Your task to perform on an android device: change keyboard looks Image 0: 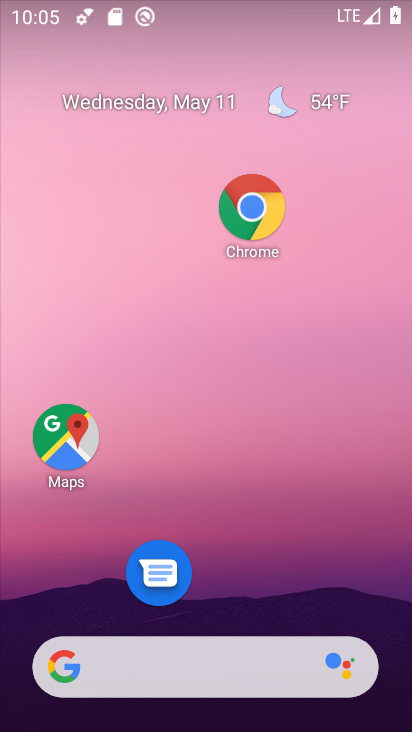
Step 0: drag from (366, 634) to (401, 137)
Your task to perform on an android device: change keyboard looks Image 1: 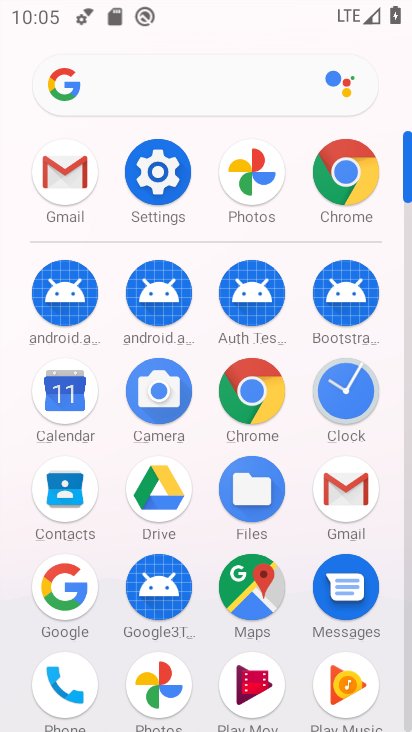
Step 1: click (155, 178)
Your task to perform on an android device: change keyboard looks Image 2: 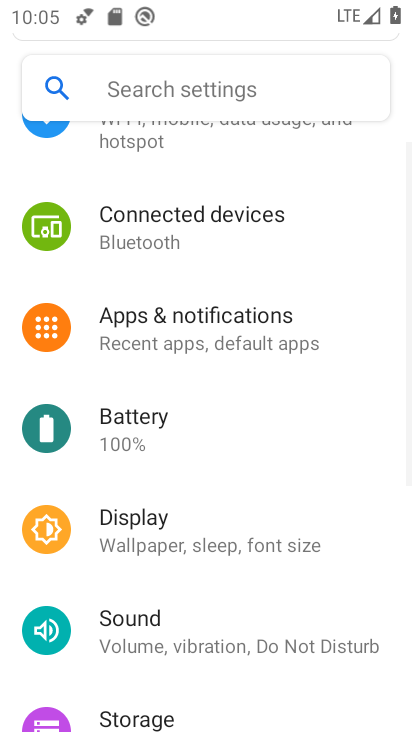
Step 2: drag from (299, 668) to (248, 142)
Your task to perform on an android device: change keyboard looks Image 3: 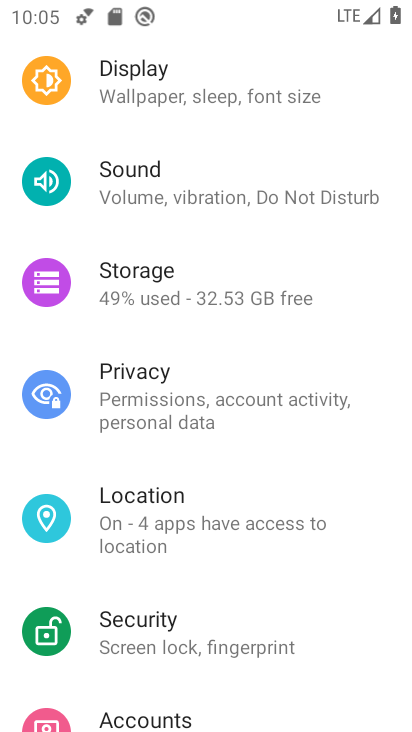
Step 3: drag from (269, 699) to (279, 44)
Your task to perform on an android device: change keyboard looks Image 4: 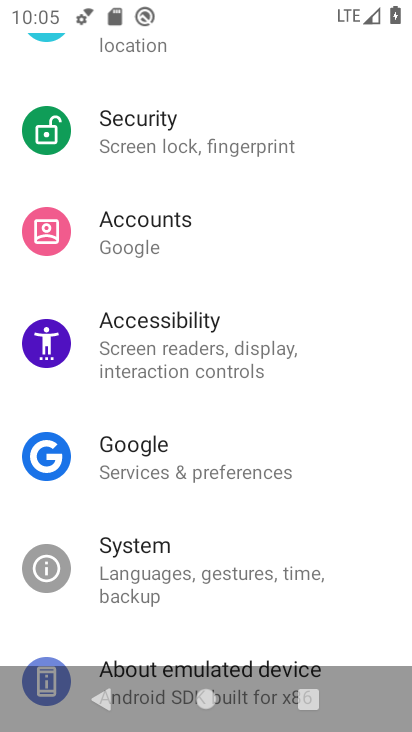
Step 4: drag from (244, 609) to (256, 148)
Your task to perform on an android device: change keyboard looks Image 5: 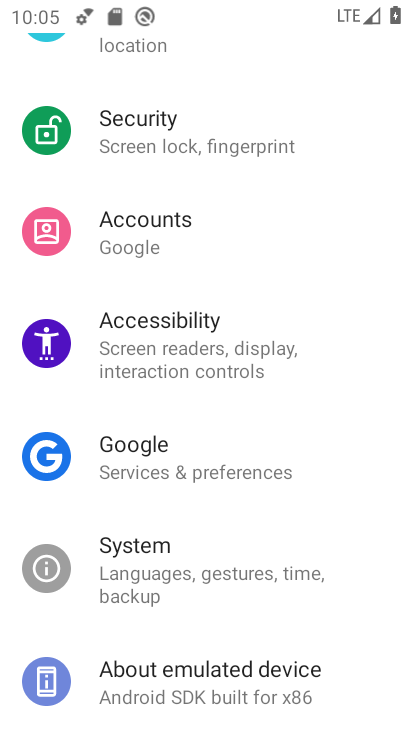
Step 5: click (181, 590)
Your task to perform on an android device: change keyboard looks Image 6: 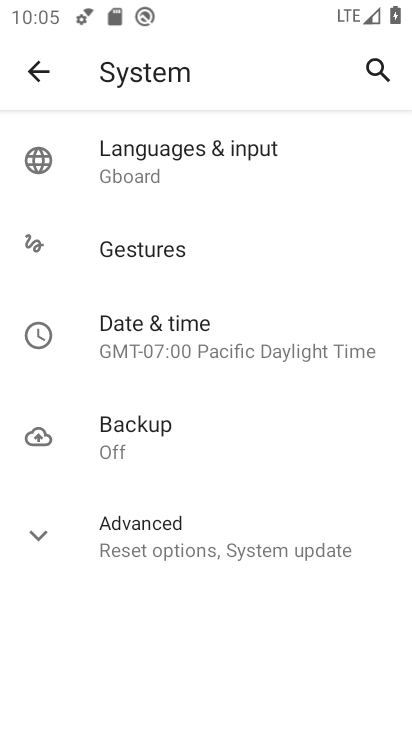
Step 6: click (226, 161)
Your task to perform on an android device: change keyboard looks Image 7: 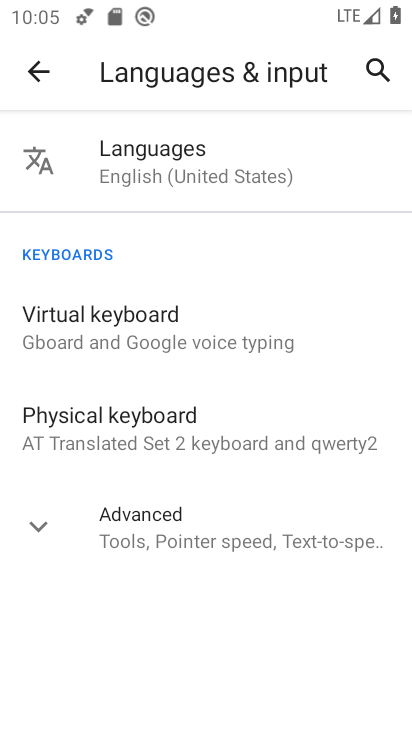
Step 7: click (200, 311)
Your task to perform on an android device: change keyboard looks Image 8: 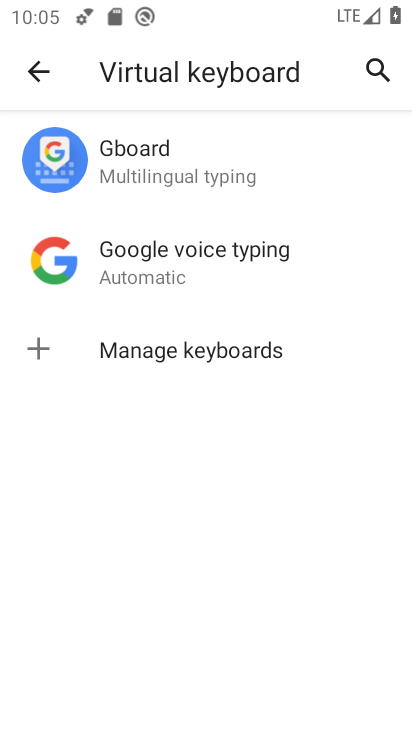
Step 8: click (216, 177)
Your task to perform on an android device: change keyboard looks Image 9: 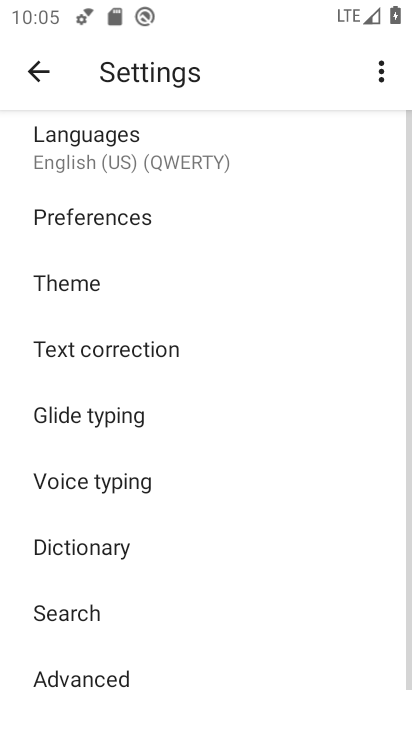
Step 9: click (77, 281)
Your task to perform on an android device: change keyboard looks Image 10: 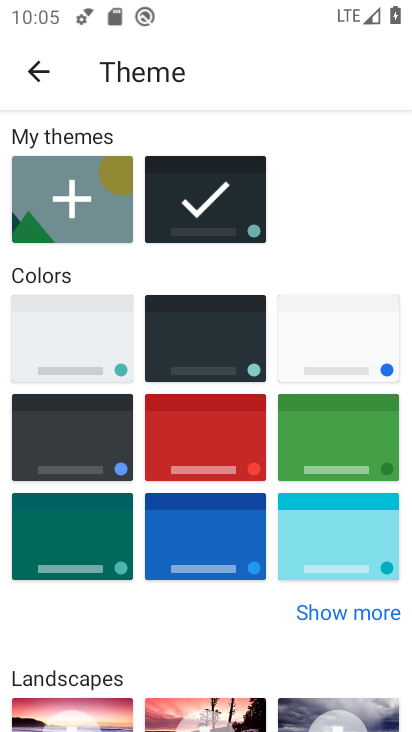
Step 10: click (361, 455)
Your task to perform on an android device: change keyboard looks Image 11: 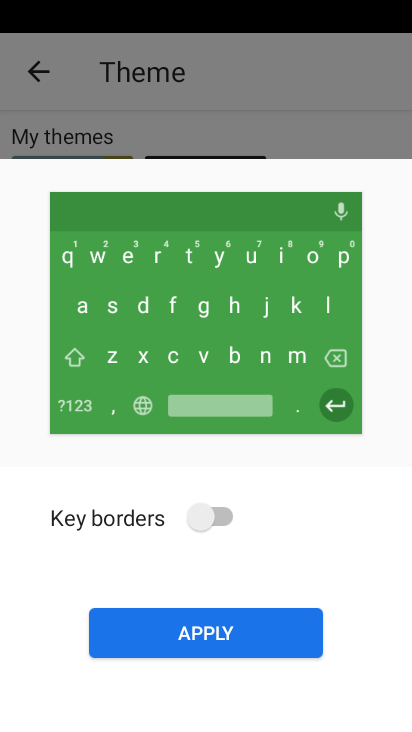
Step 11: click (311, 645)
Your task to perform on an android device: change keyboard looks Image 12: 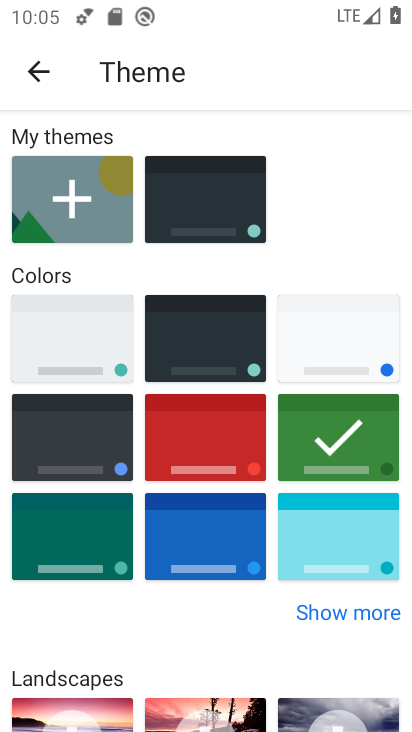
Step 12: task complete